Your task to perform on an android device: toggle wifi Image 0: 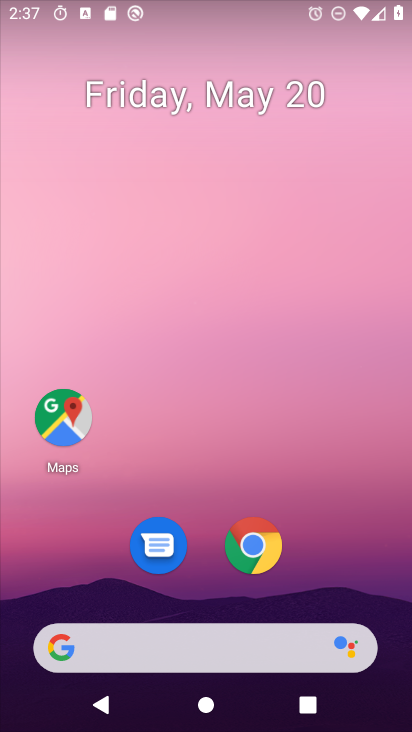
Step 0: drag from (324, 653) to (321, 52)
Your task to perform on an android device: toggle wifi Image 1: 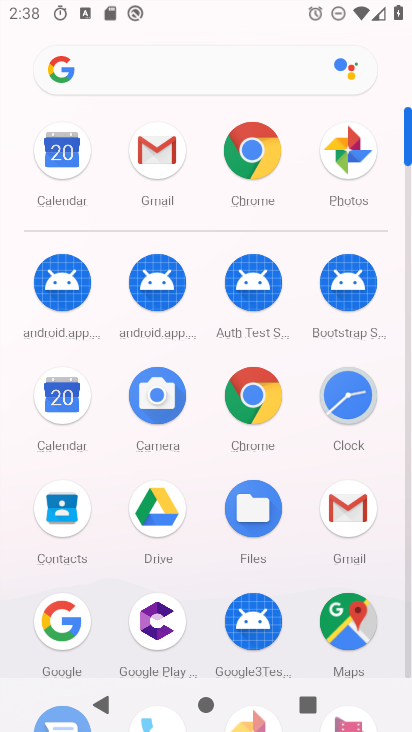
Step 1: drag from (290, 606) to (318, 198)
Your task to perform on an android device: toggle wifi Image 2: 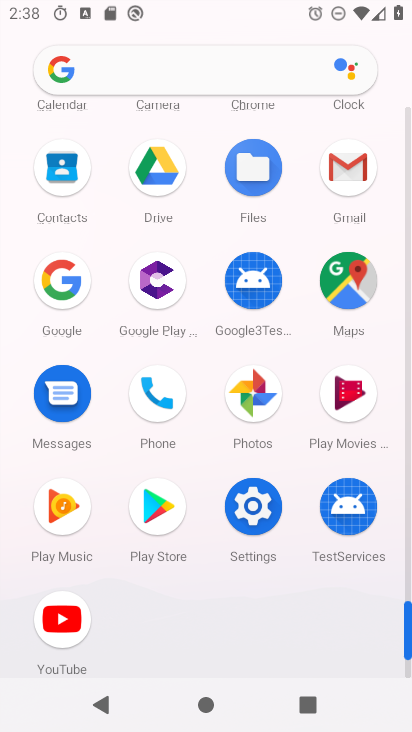
Step 2: click (256, 510)
Your task to perform on an android device: toggle wifi Image 3: 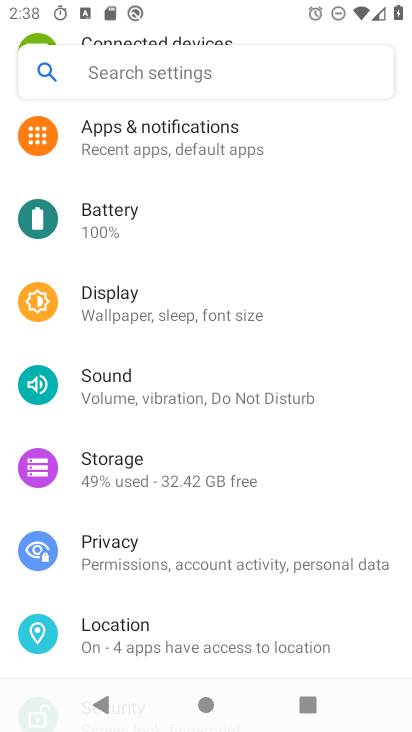
Step 3: drag from (217, 217) to (257, 714)
Your task to perform on an android device: toggle wifi Image 4: 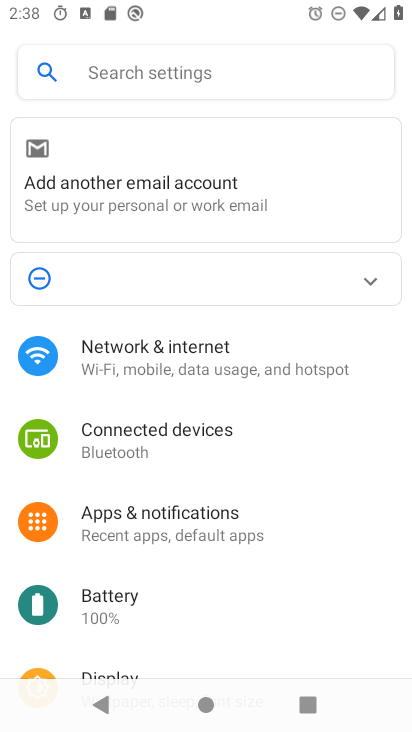
Step 4: click (258, 381)
Your task to perform on an android device: toggle wifi Image 5: 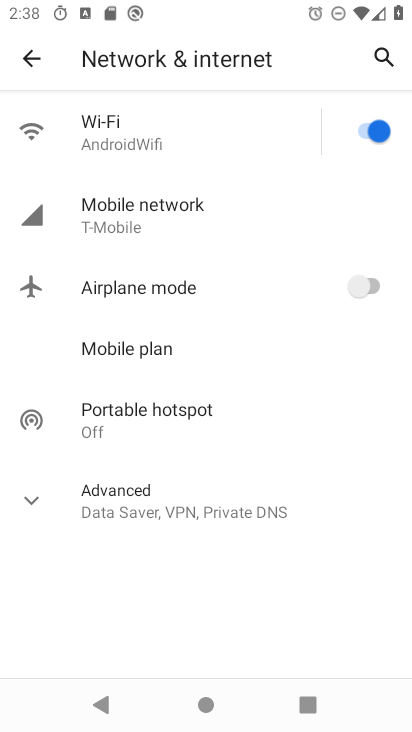
Step 5: click (356, 132)
Your task to perform on an android device: toggle wifi Image 6: 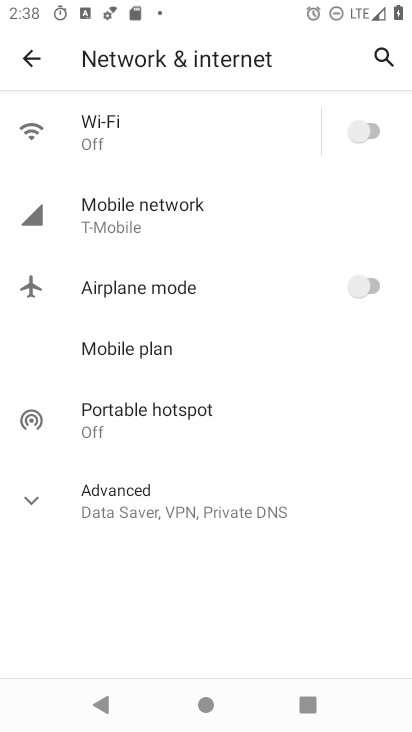
Step 6: task complete